Your task to perform on an android device: turn off data saver in the chrome app Image 0: 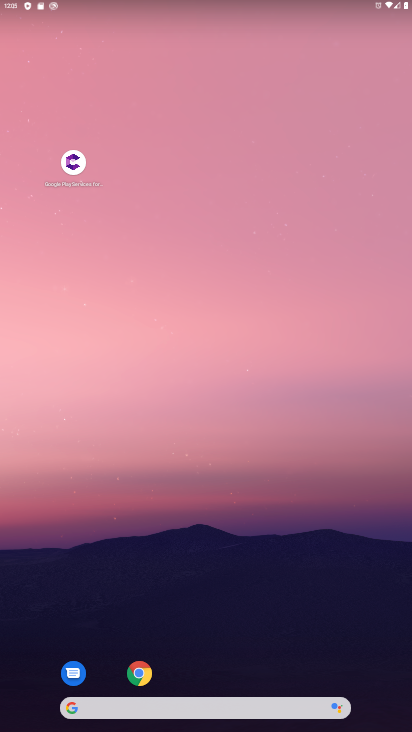
Step 0: drag from (236, 661) to (266, 190)
Your task to perform on an android device: turn off data saver in the chrome app Image 1: 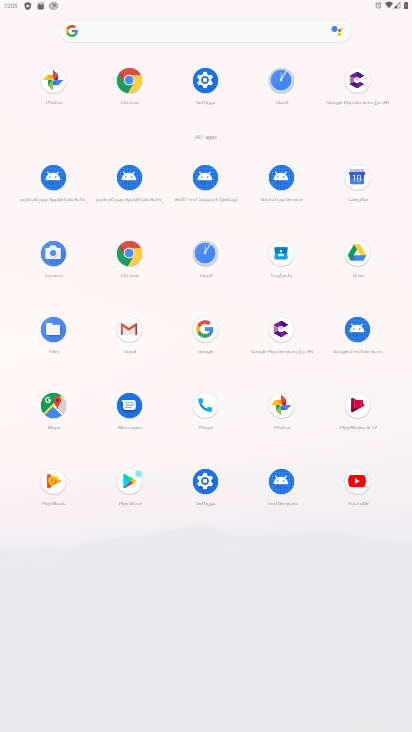
Step 1: click (190, 93)
Your task to perform on an android device: turn off data saver in the chrome app Image 2: 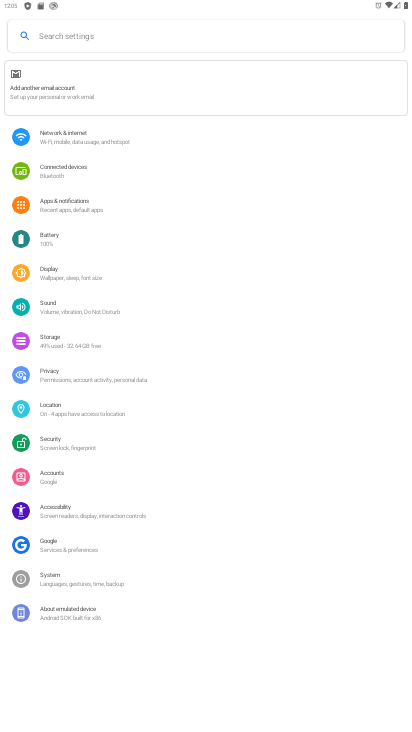
Step 2: press home button
Your task to perform on an android device: turn off data saver in the chrome app Image 3: 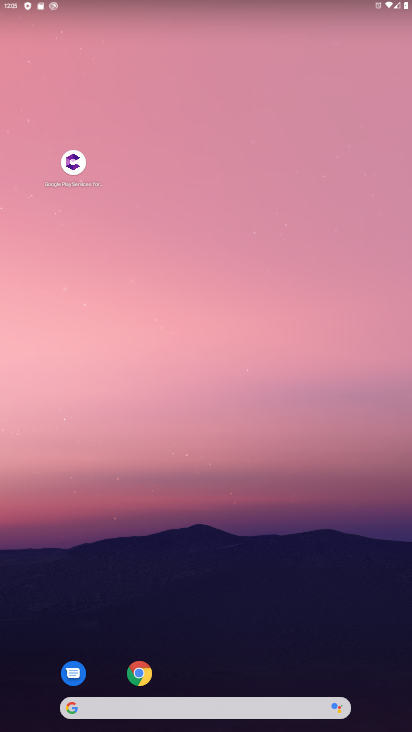
Step 3: click (139, 671)
Your task to perform on an android device: turn off data saver in the chrome app Image 4: 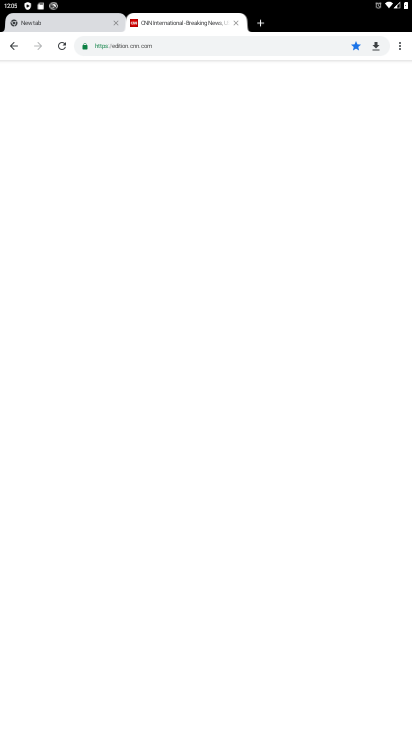
Step 4: click (396, 40)
Your task to perform on an android device: turn off data saver in the chrome app Image 5: 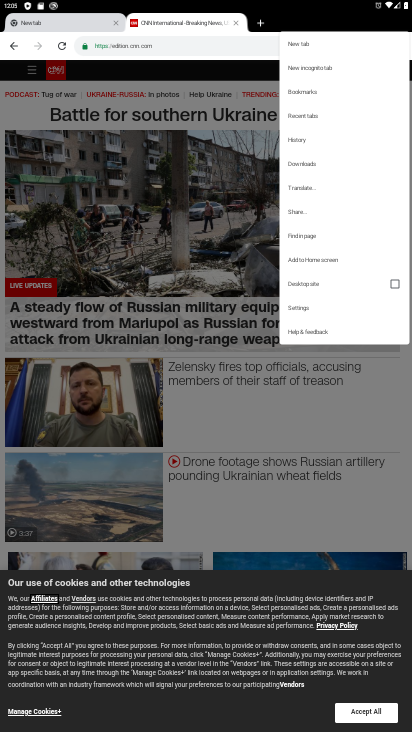
Step 5: click (305, 312)
Your task to perform on an android device: turn off data saver in the chrome app Image 6: 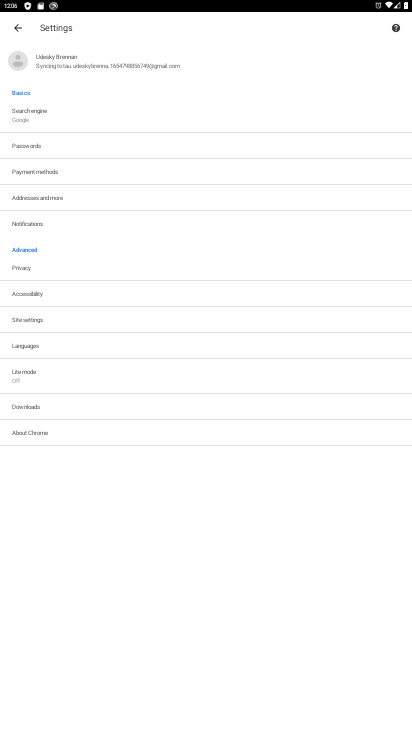
Step 6: click (55, 370)
Your task to perform on an android device: turn off data saver in the chrome app Image 7: 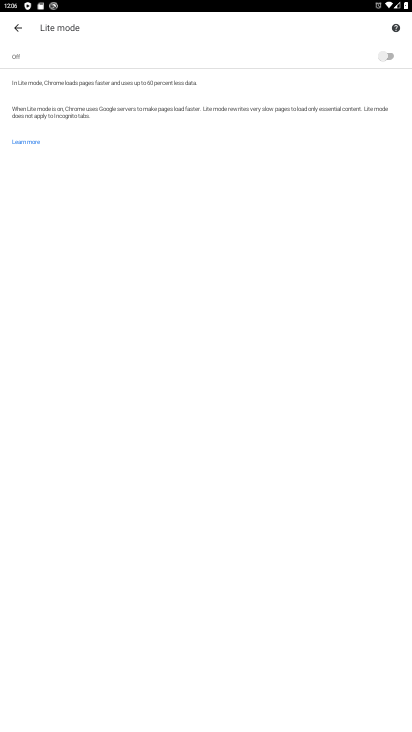
Step 7: click (369, 61)
Your task to perform on an android device: turn off data saver in the chrome app Image 8: 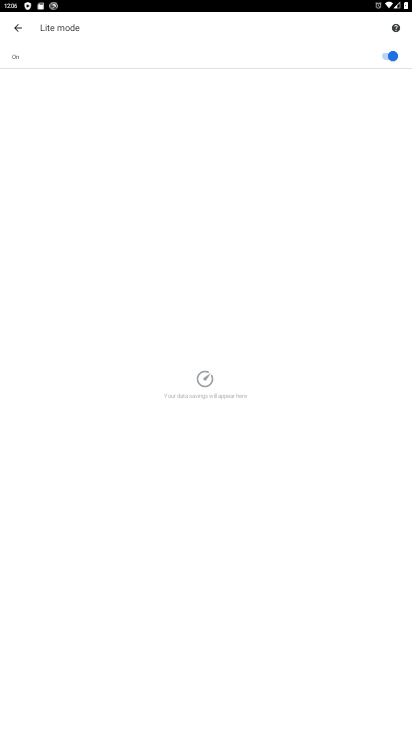
Step 8: click (369, 61)
Your task to perform on an android device: turn off data saver in the chrome app Image 9: 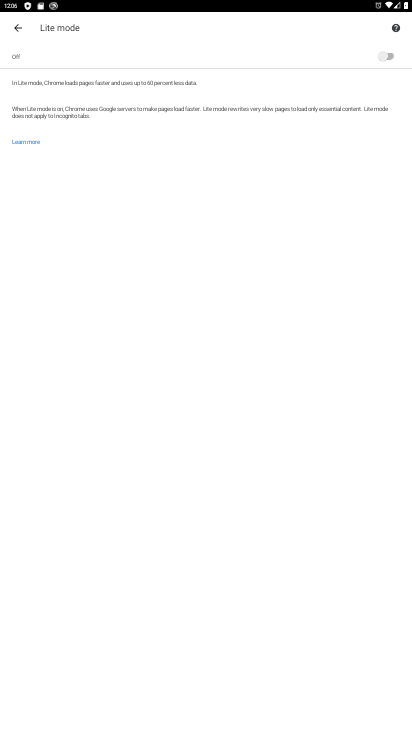
Step 9: task complete